Your task to perform on an android device: choose inbox layout in the gmail app Image 0: 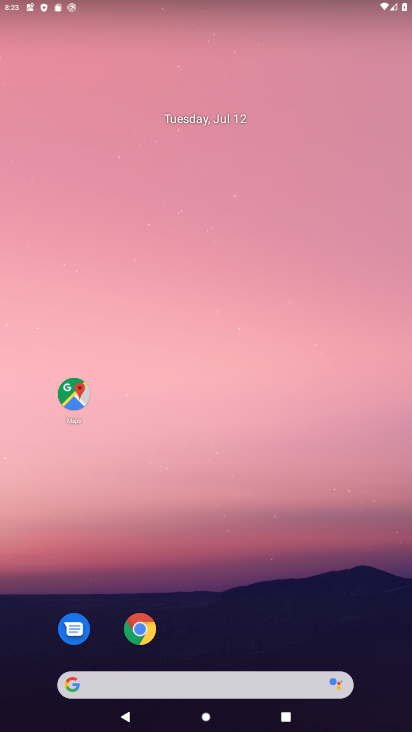
Step 0: drag from (213, 612) to (211, 276)
Your task to perform on an android device: choose inbox layout in the gmail app Image 1: 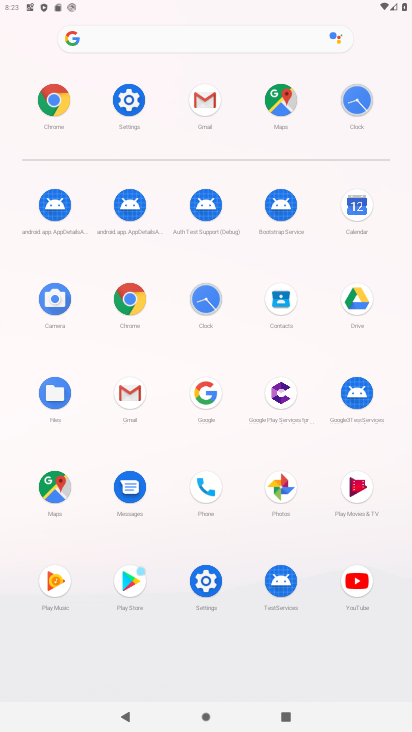
Step 1: click (201, 91)
Your task to perform on an android device: choose inbox layout in the gmail app Image 2: 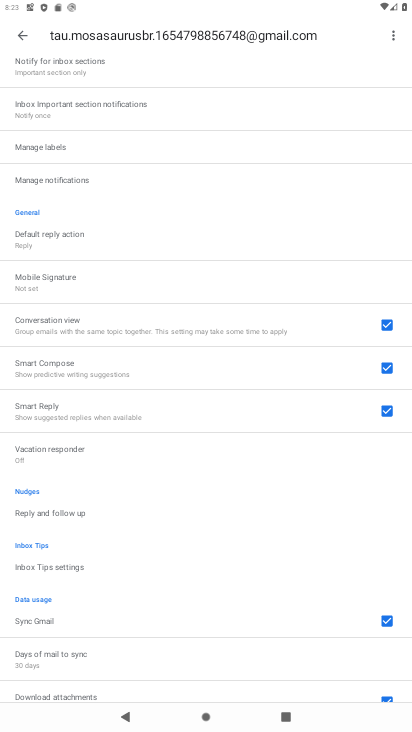
Step 2: drag from (43, 81) to (69, 297)
Your task to perform on an android device: choose inbox layout in the gmail app Image 3: 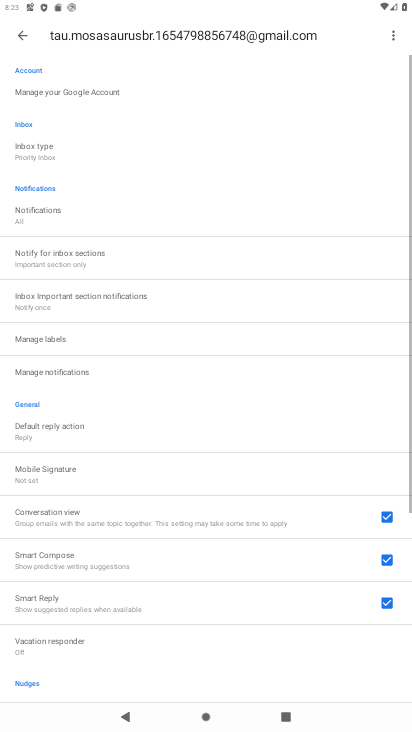
Step 3: click (58, 144)
Your task to perform on an android device: choose inbox layout in the gmail app Image 4: 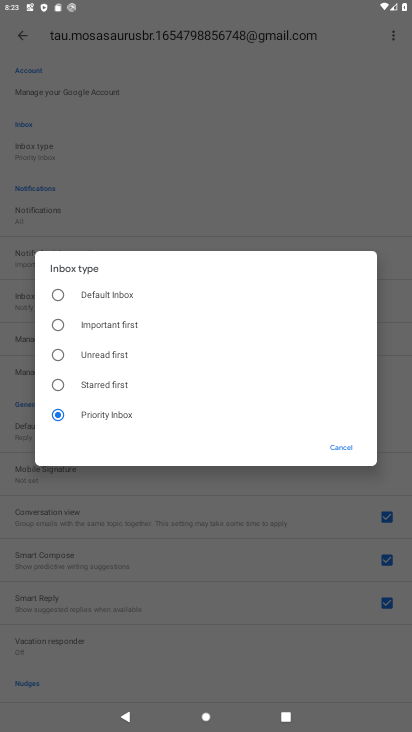
Step 4: click (82, 315)
Your task to perform on an android device: choose inbox layout in the gmail app Image 5: 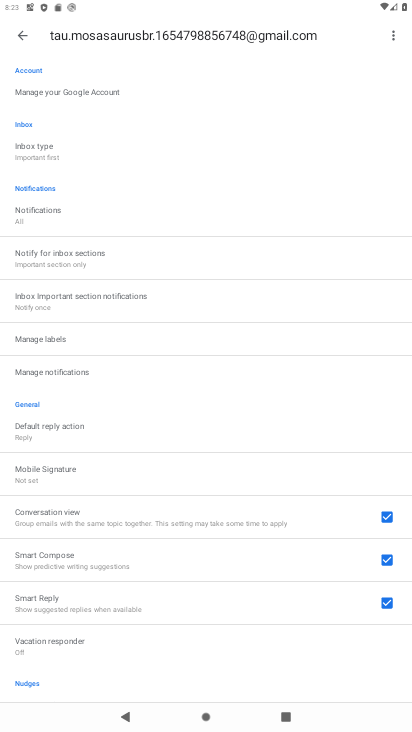
Step 5: task complete